Your task to perform on an android device: turn on wifi Image 0: 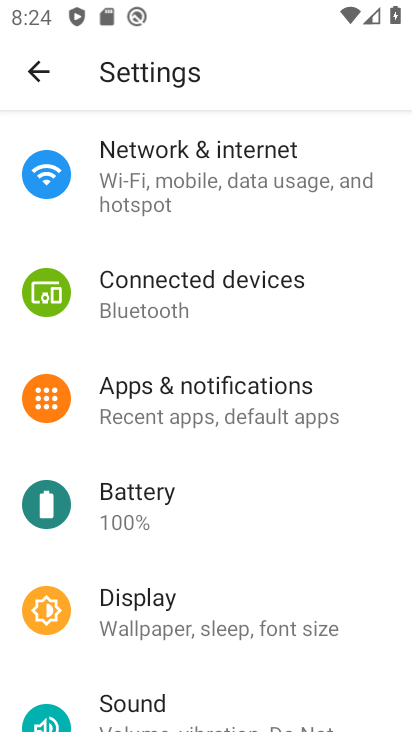
Step 0: drag from (189, 172) to (190, 459)
Your task to perform on an android device: turn on wifi Image 1: 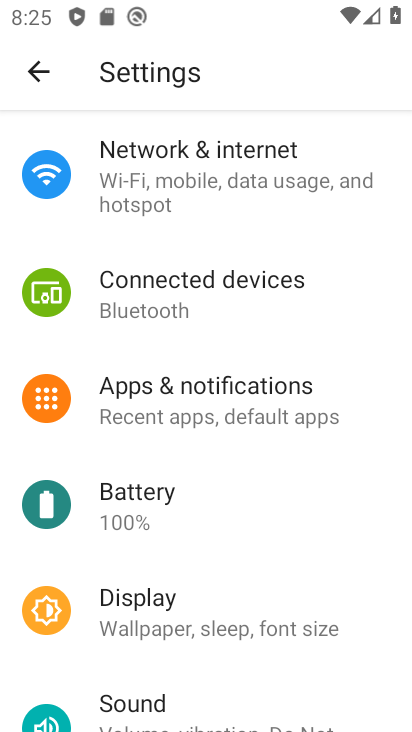
Step 1: click (144, 166)
Your task to perform on an android device: turn on wifi Image 2: 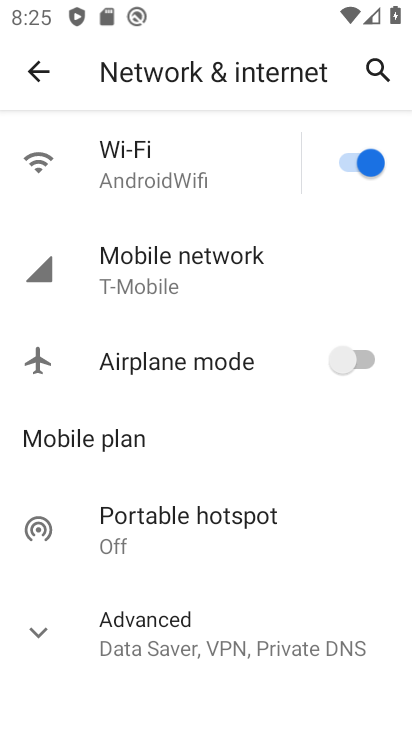
Step 2: task complete